Your task to perform on an android device: Open Google Chrome Image 0: 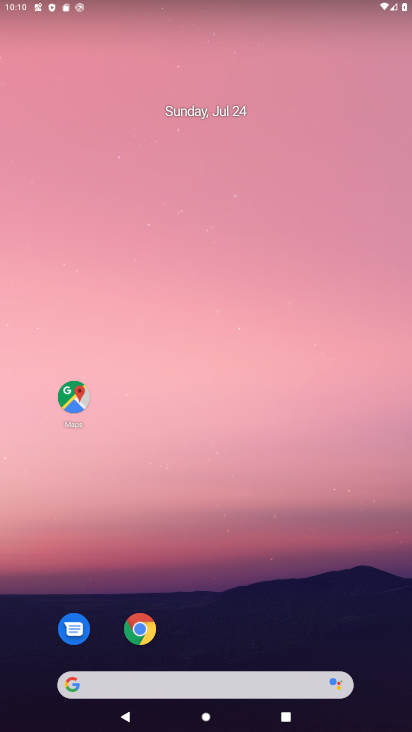
Step 0: drag from (222, 386) to (222, 222)
Your task to perform on an android device: Open Google Chrome Image 1: 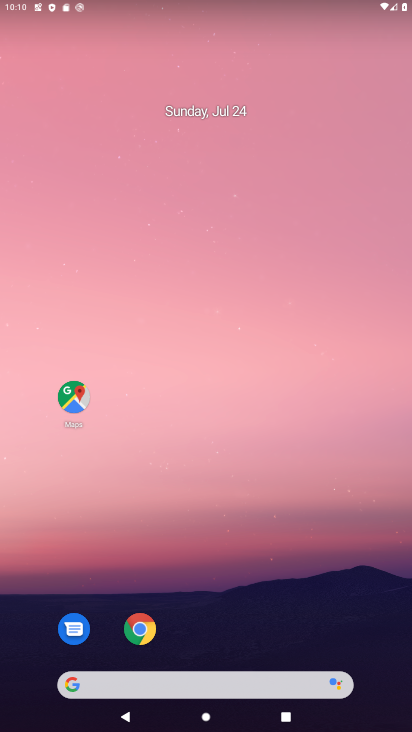
Step 1: drag from (188, 644) to (191, 179)
Your task to perform on an android device: Open Google Chrome Image 2: 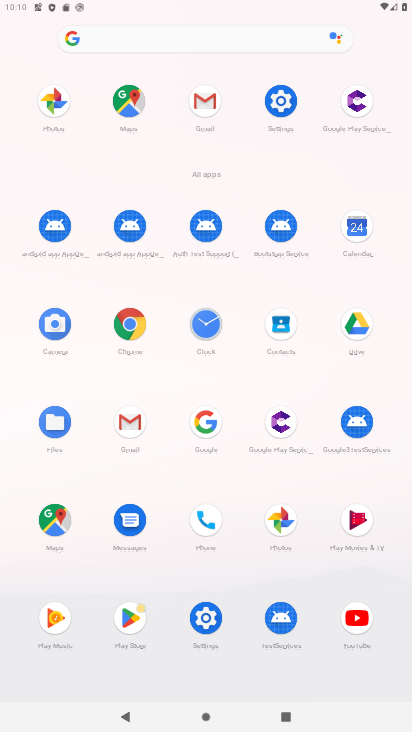
Step 2: click (129, 319)
Your task to perform on an android device: Open Google Chrome Image 3: 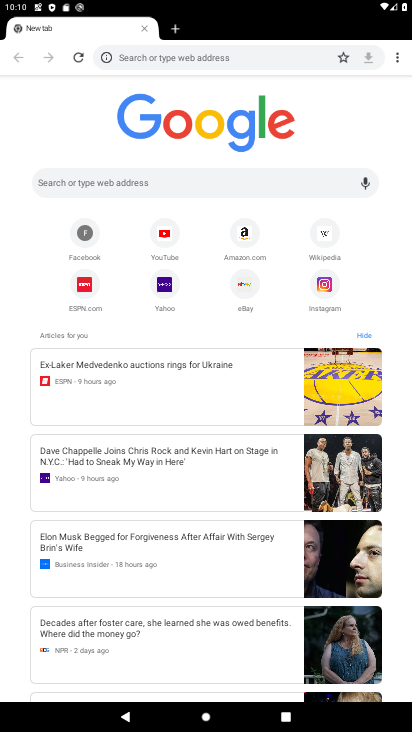
Step 3: drag from (394, 55) to (306, 260)
Your task to perform on an android device: Open Google Chrome Image 4: 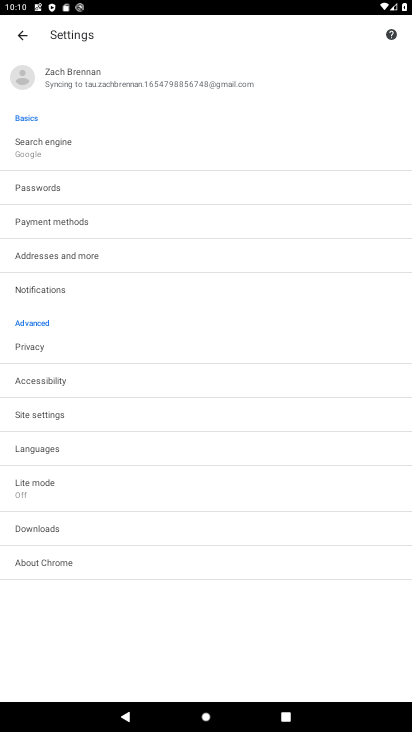
Step 4: drag from (141, 531) to (265, 167)
Your task to perform on an android device: Open Google Chrome Image 5: 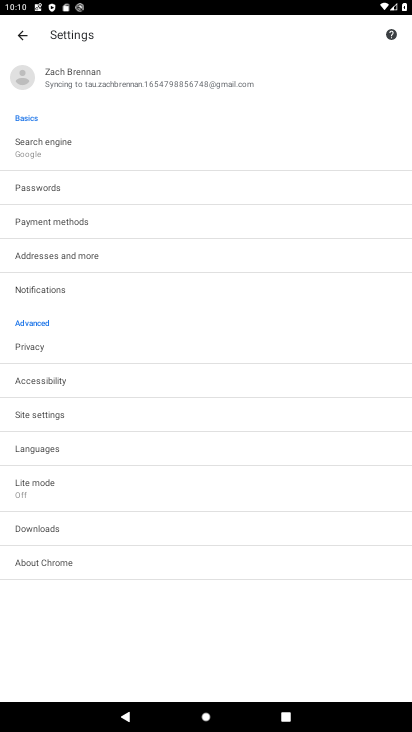
Step 5: click (17, 30)
Your task to perform on an android device: Open Google Chrome Image 6: 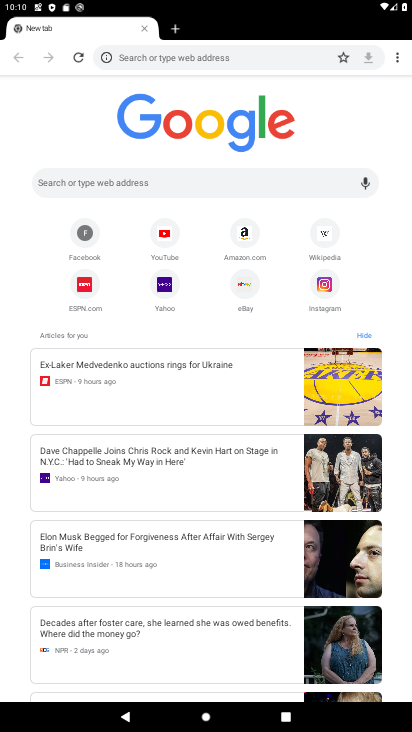
Step 6: task complete